Your task to perform on an android device: What's on my calendar today? Image 0: 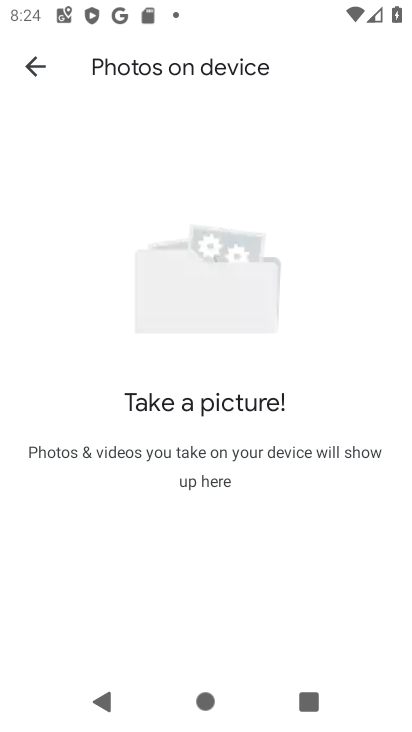
Step 0: press home button
Your task to perform on an android device: What's on my calendar today? Image 1: 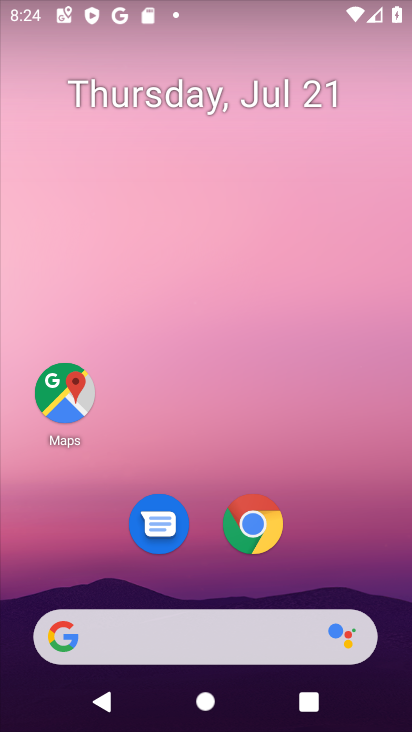
Step 1: drag from (147, 617) to (317, 147)
Your task to perform on an android device: What's on my calendar today? Image 2: 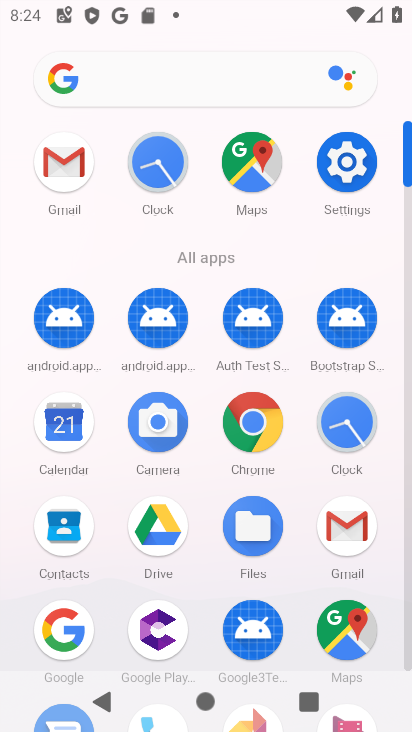
Step 2: click (63, 419)
Your task to perform on an android device: What's on my calendar today? Image 3: 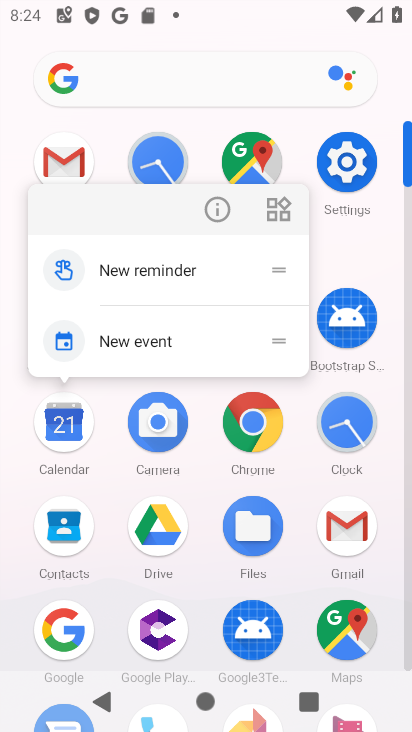
Step 3: click (60, 428)
Your task to perform on an android device: What's on my calendar today? Image 4: 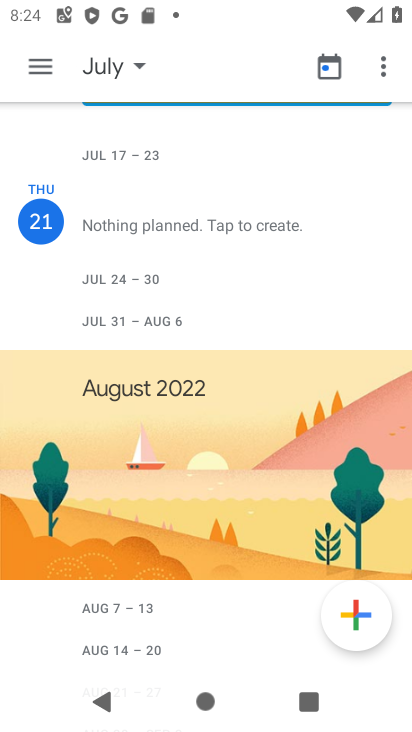
Step 4: task complete